Your task to perform on an android device: What is the recent news? Image 0: 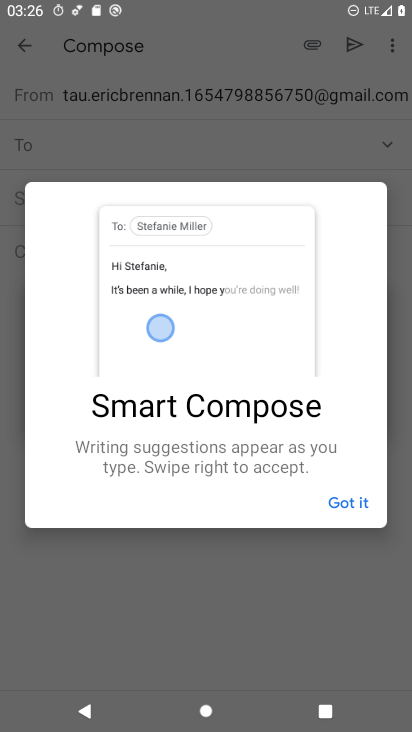
Step 0: press home button
Your task to perform on an android device: What is the recent news? Image 1: 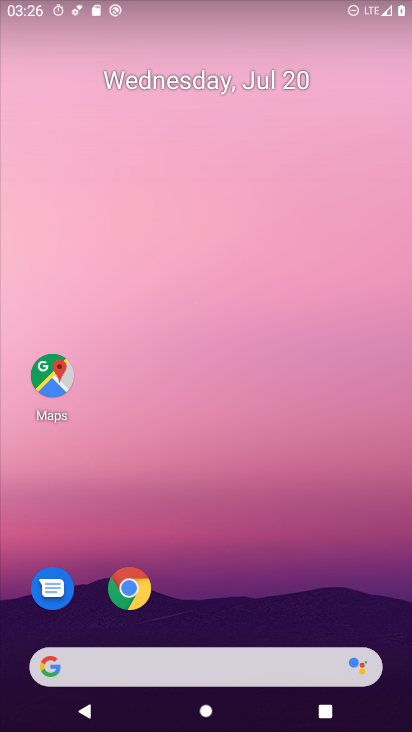
Step 1: drag from (189, 619) to (133, 58)
Your task to perform on an android device: What is the recent news? Image 2: 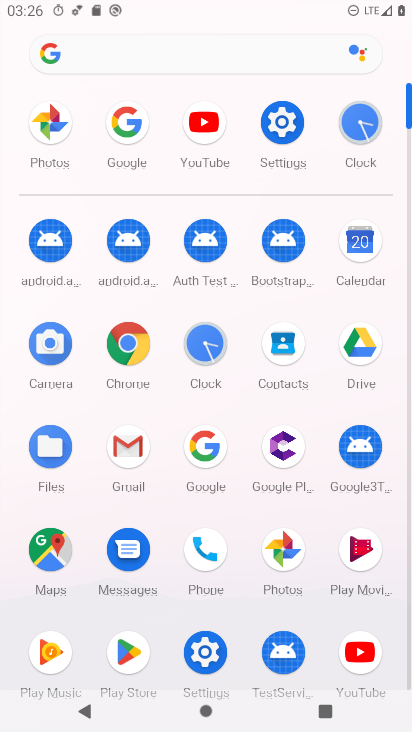
Step 2: click (192, 449)
Your task to perform on an android device: What is the recent news? Image 3: 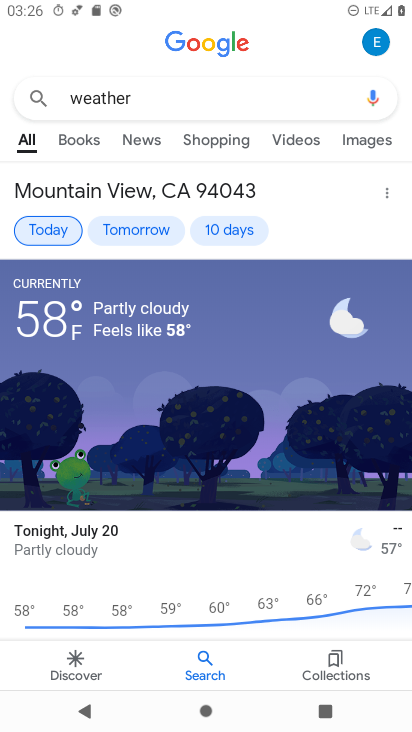
Step 3: click (149, 107)
Your task to perform on an android device: What is the recent news? Image 4: 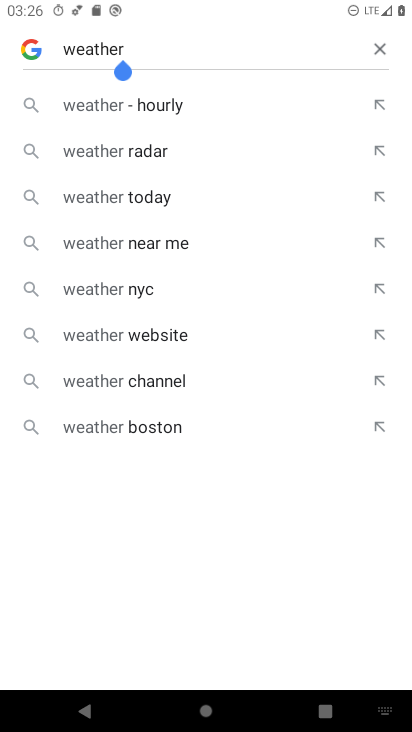
Step 4: click (383, 42)
Your task to perform on an android device: What is the recent news? Image 5: 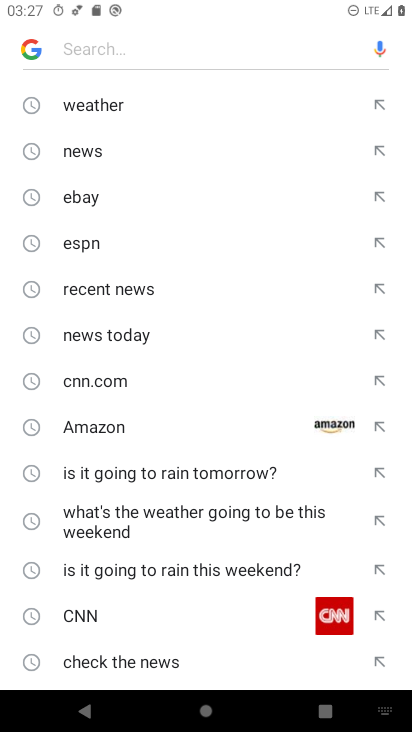
Step 5: click (85, 158)
Your task to perform on an android device: What is the recent news? Image 6: 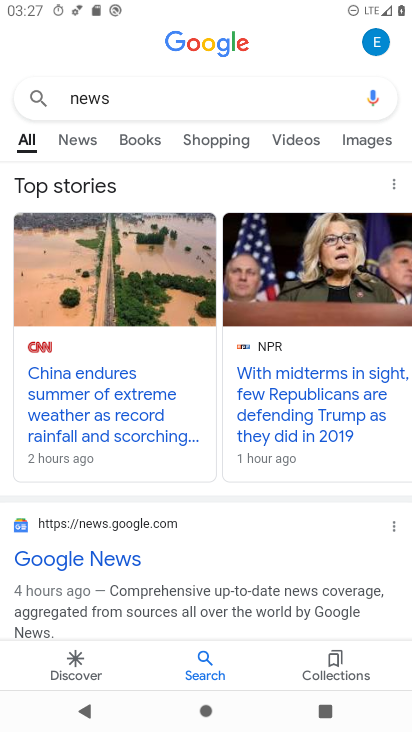
Step 6: click (85, 158)
Your task to perform on an android device: What is the recent news? Image 7: 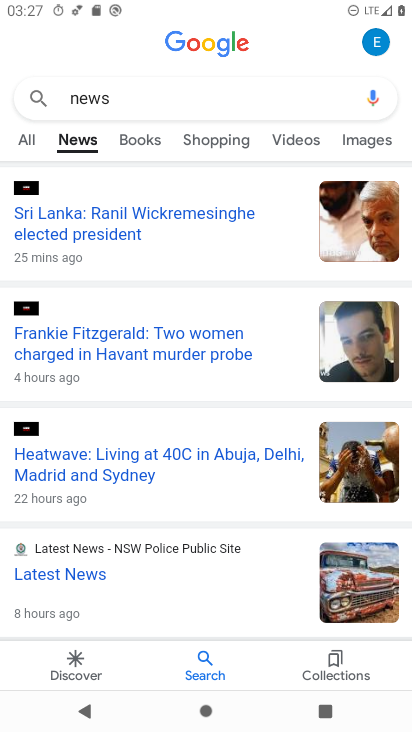
Step 7: task complete